Your task to perform on an android device: star an email in the gmail app Image 0: 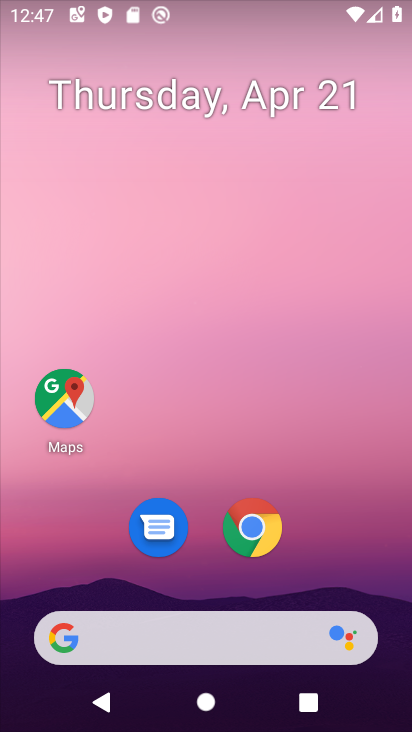
Step 0: drag from (361, 553) to (369, 114)
Your task to perform on an android device: star an email in the gmail app Image 1: 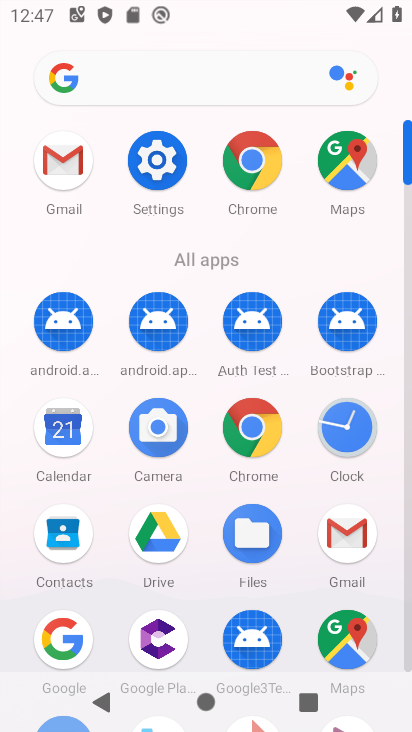
Step 1: click (354, 542)
Your task to perform on an android device: star an email in the gmail app Image 2: 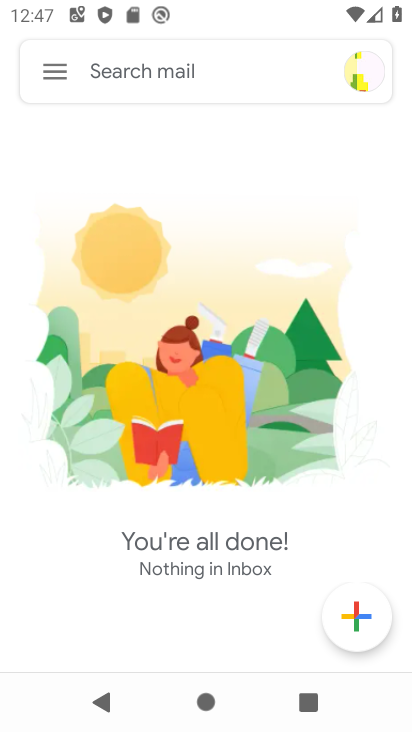
Step 2: click (45, 82)
Your task to perform on an android device: star an email in the gmail app Image 3: 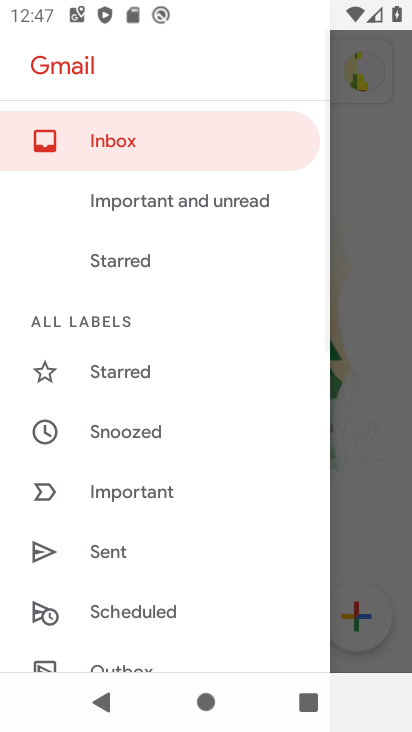
Step 3: drag from (253, 537) to (276, 341)
Your task to perform on an android device: star an email in the gmail app Image 4: 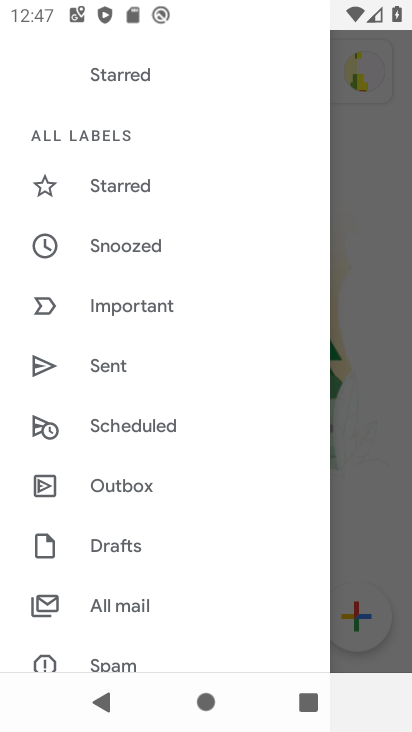
Step 4: drag from (245, 577) to (239, 331)
Your task to perform on an android device: star an email in the gmail app Image 5: 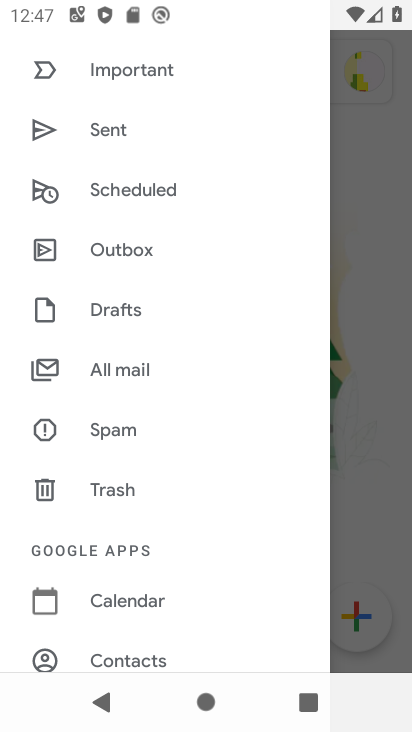
Step 5: drag from (222, 504) to (227, 283)
Your task to perform on an android device: star an email in the gmail app Image 6: 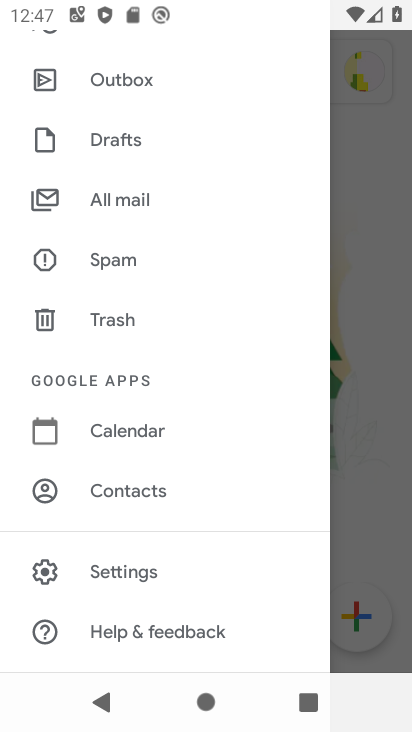
Step 6: drag from (244, 233) to (245, 485)
Your task to perform on an android device: star an email in the gmail app Image 7: 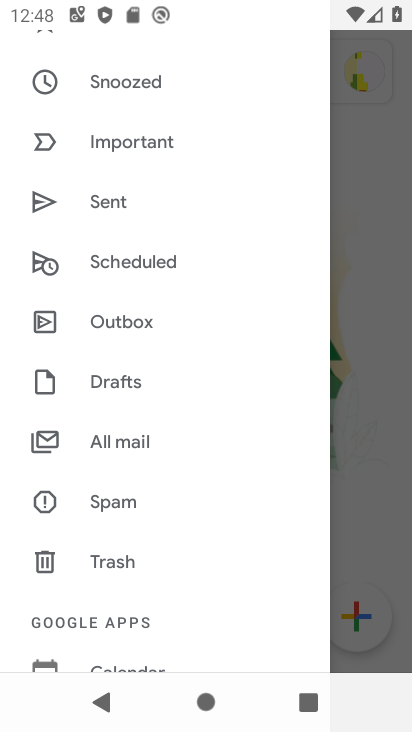
Step 7: drag from (237, 237) to (230, 468)
Your task to perform on an android device: star an email in the gmail app Image 8: 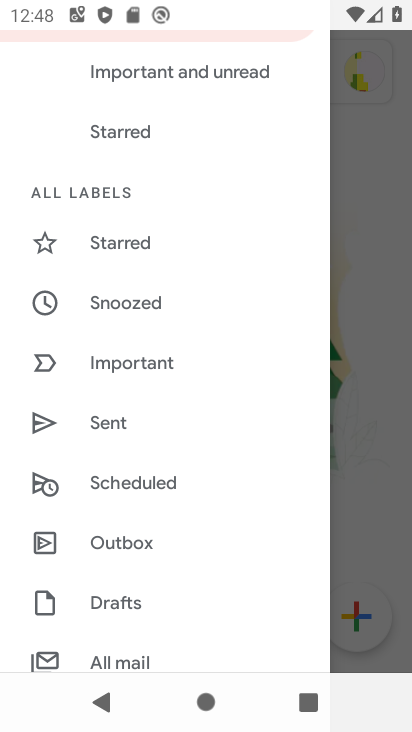
Step 8: drag from (241, 209) to (240, 421)
Your task to perform on an android device: star an email in the gmail app Image 9: 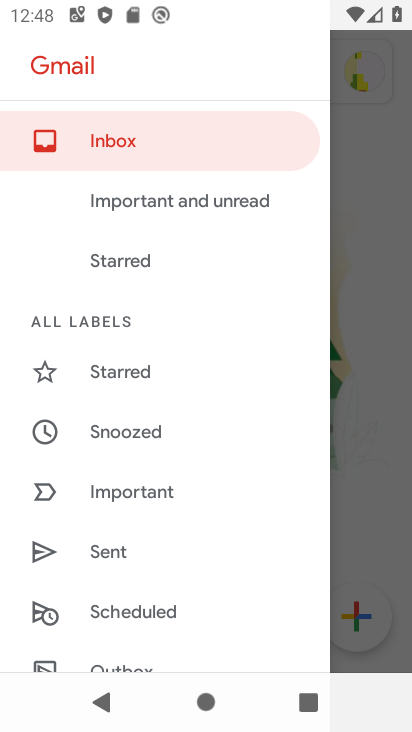
Step 9: click (142, 144)
Your task to perform on an android device: star an email in the gmail app Image 10: 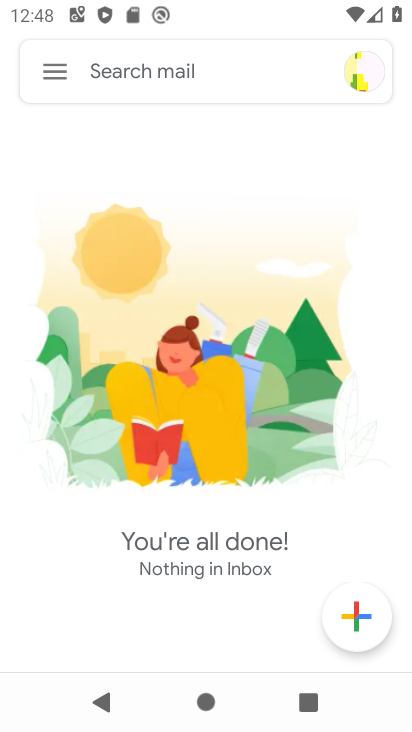
Step 10: task complete